Your task to perform on an android device: turn off location history Image 0: 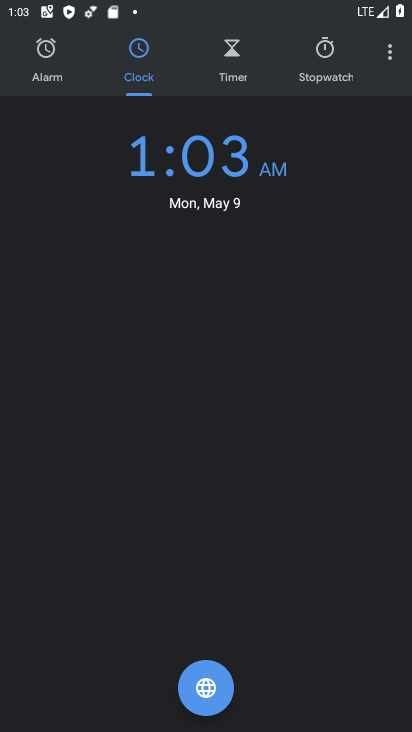
Step 0: press home button
Your task to perform on an android device: turn off location history Image 1: 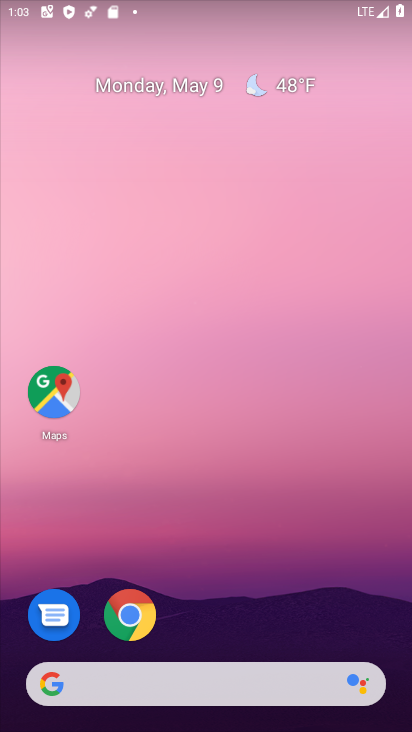
Step 1: drag from (381, 636) to (265, 77)
Your task to perform on an android device: turn off location history Image 2: 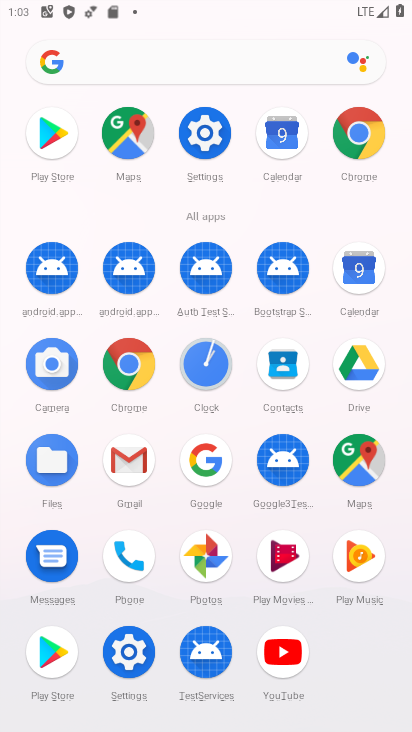
Step 2: click (360, 460)
Your task to perform on an android device: turn off location history Image 3: 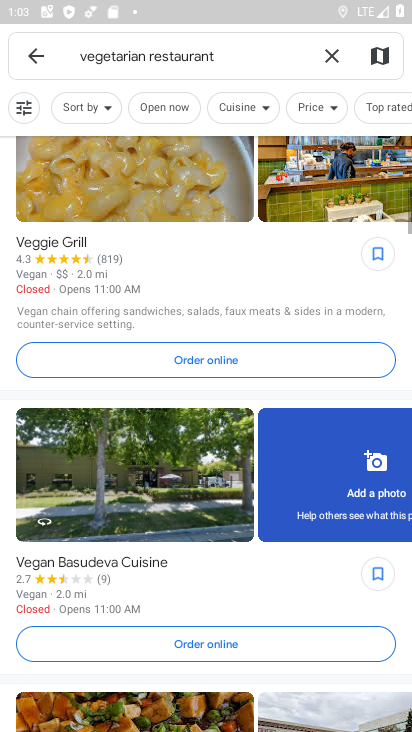
Step 3: click (333, 55)
Your task to perform on an android device: turn off location history Image 4: 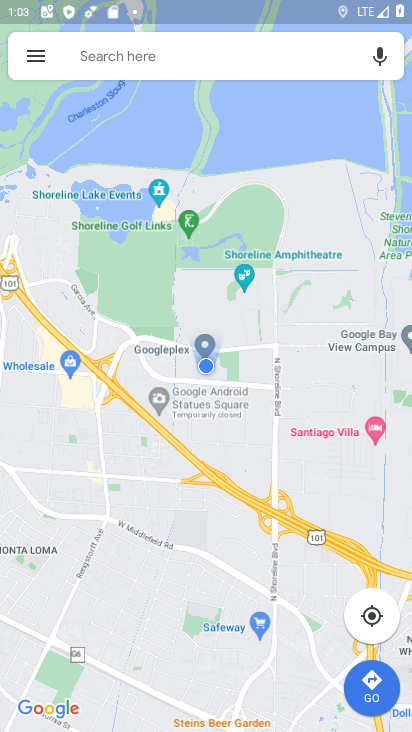
Step 4: click (34, 53)
Your task to perform on an android device: turn off location history Image 5: 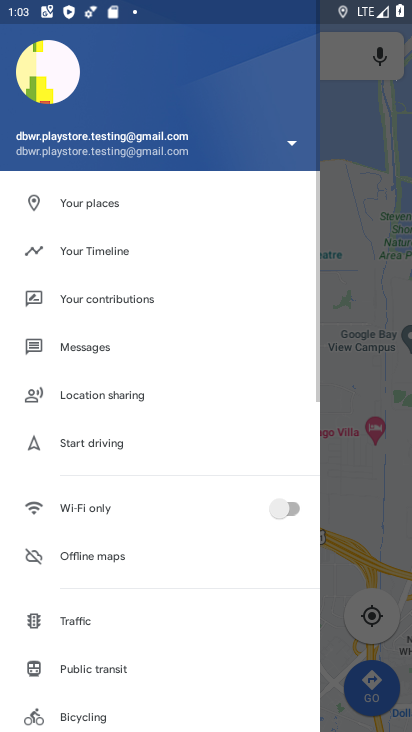
Step 5: drag from (163, 620) to (213, 113)
Your task to perform on an android device: turn off location history Image 6: 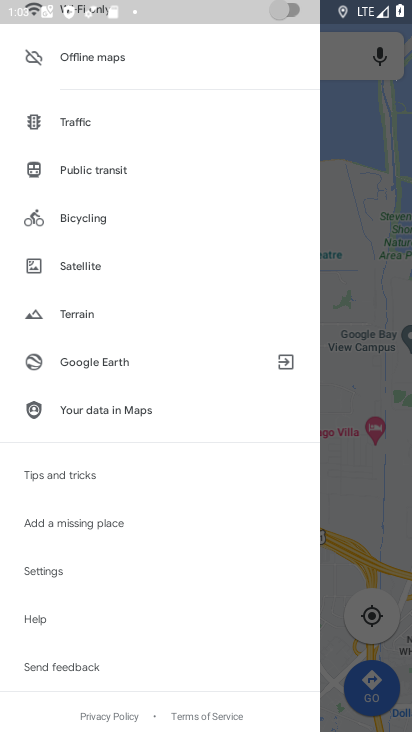
Step 6: click (36, 571)
Your task to perform on an android device: turn off location history Image 7: 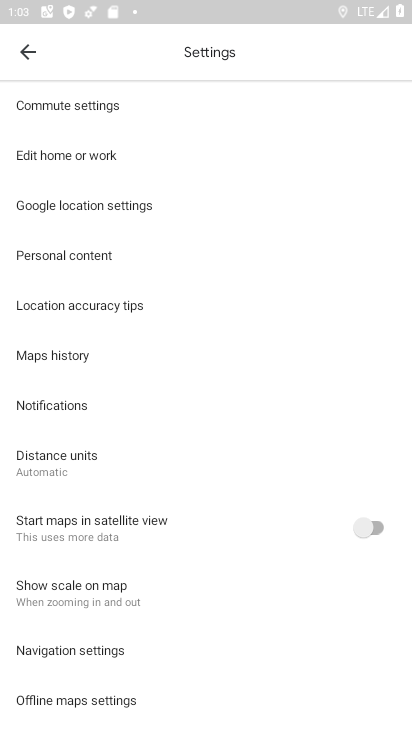
Step 7: click (67, 259)
Your task to perform on an android device: turn off location history Image 8: 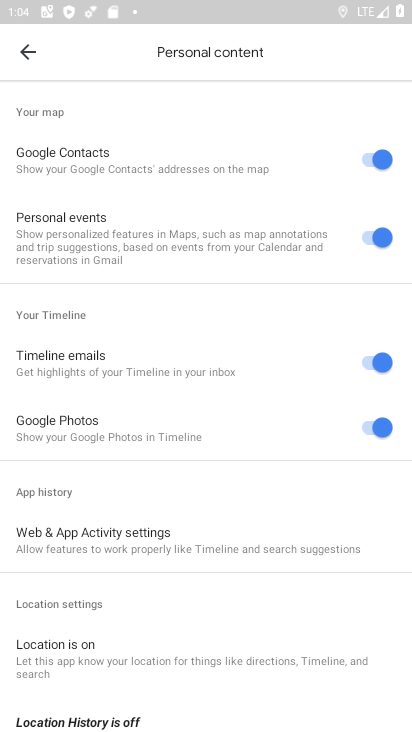
Step 8: task complete